Your task to perform on an android device: open app "Lyft - Rideshare, Bikes, Scooters & Transit" (install if not already installed) Image 0: 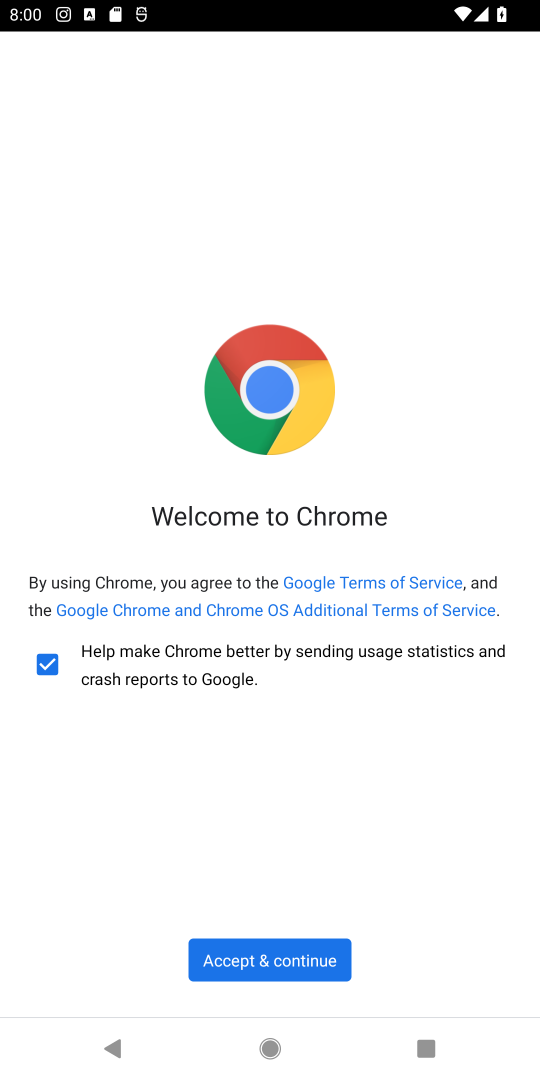
Step 0: press home button
Your task to perform on an android device: open app "Lyft - Rideshare, Bikes, Scooters & Transit" (install if not already installed) Image 1: 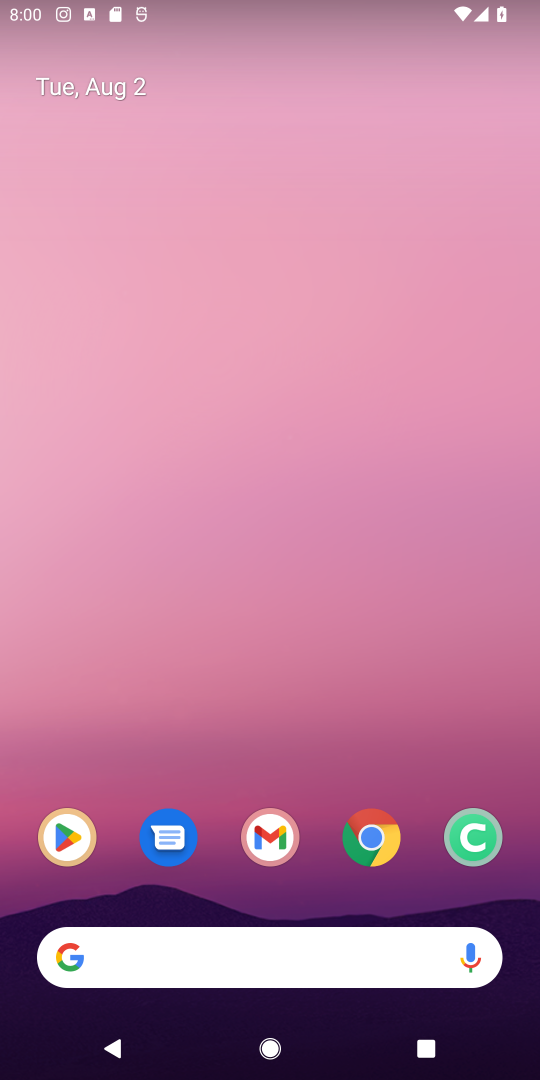
Step 1: click (76, 834)
Your task to perform on an android device: open app "Lyft - Rideshare, Bikes, Scooters & Transit" (install if not already installed) Image 2: 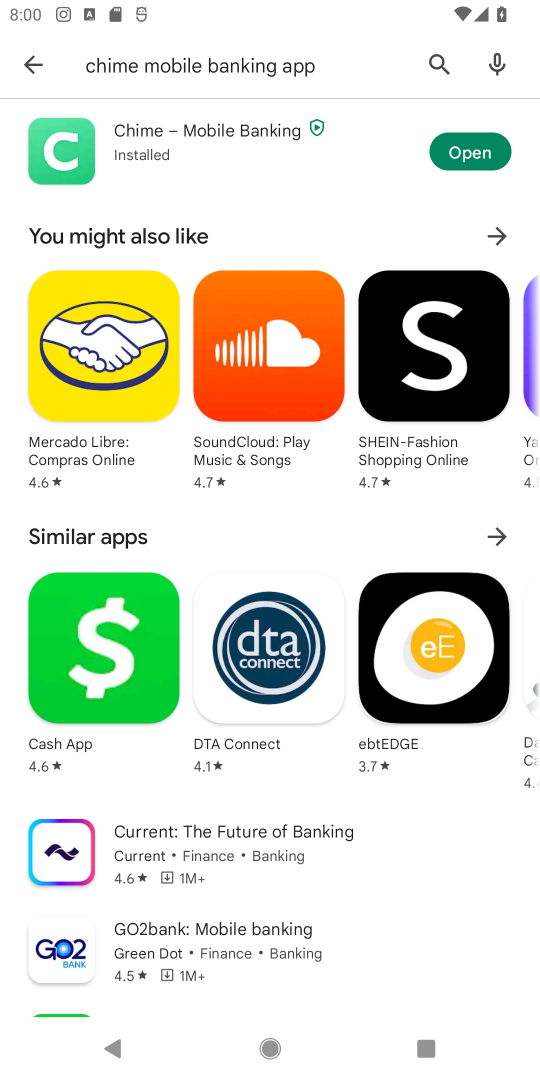
Step 2: click (435, 56)
Your task to perform on an android device: open app "Lyft - Rideshare, Bikes, Scooters & Transit" (install if not already installed) Image 3: 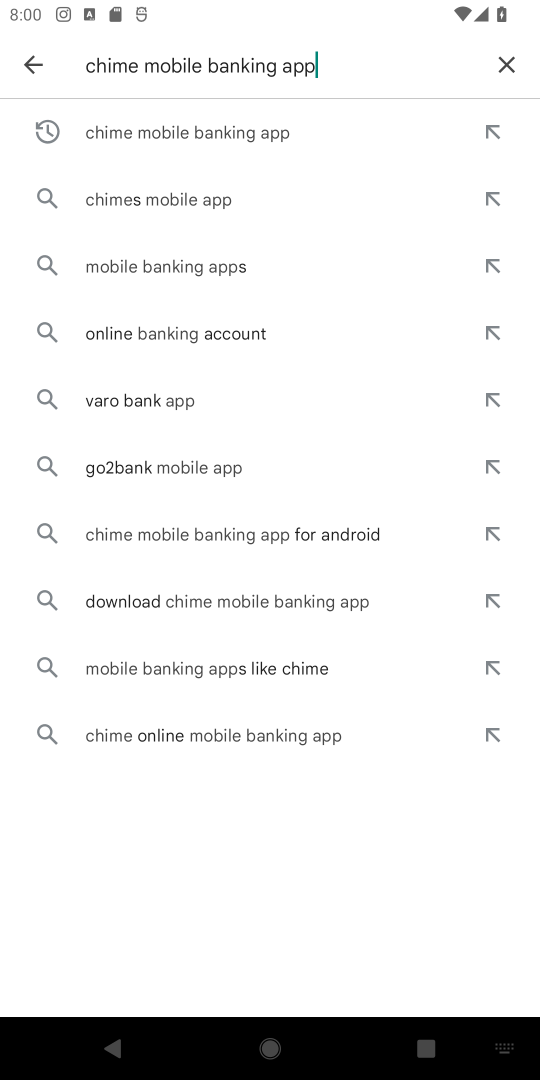
Step 3: click (501, 65)
Your task to perform on an android device: open app "Lyft - Rideshare, Bikes, Scooters & Transit" (install if not already installed) Image 4: 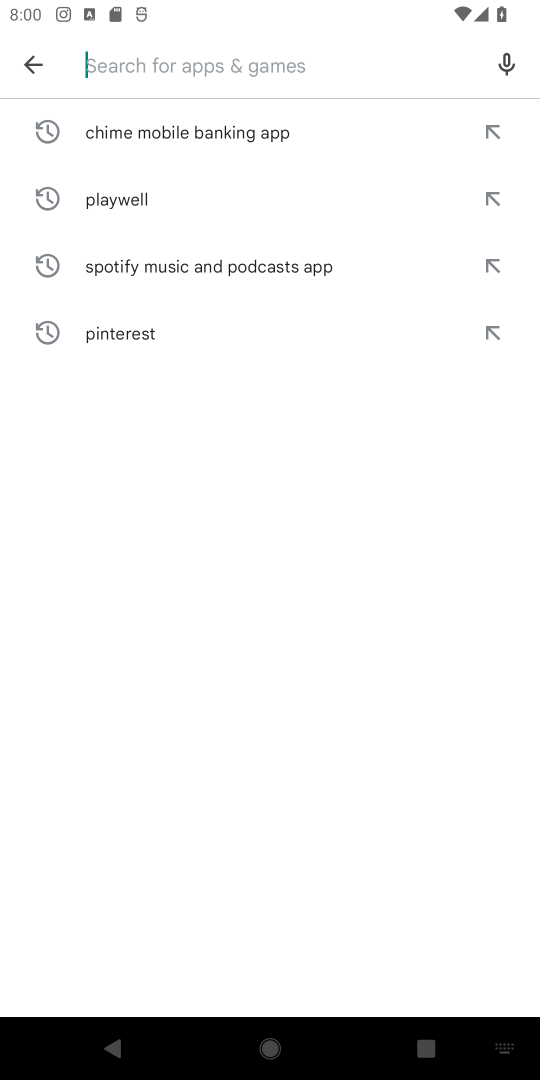
Step 4: type "Lyft - Rideshare, Bikes, Scooters & Transit"
Your task to perform on an android device: open app "Lyft - Rideshare, Bikes, Scooters & Transit" (install if not already installed) Image 5: 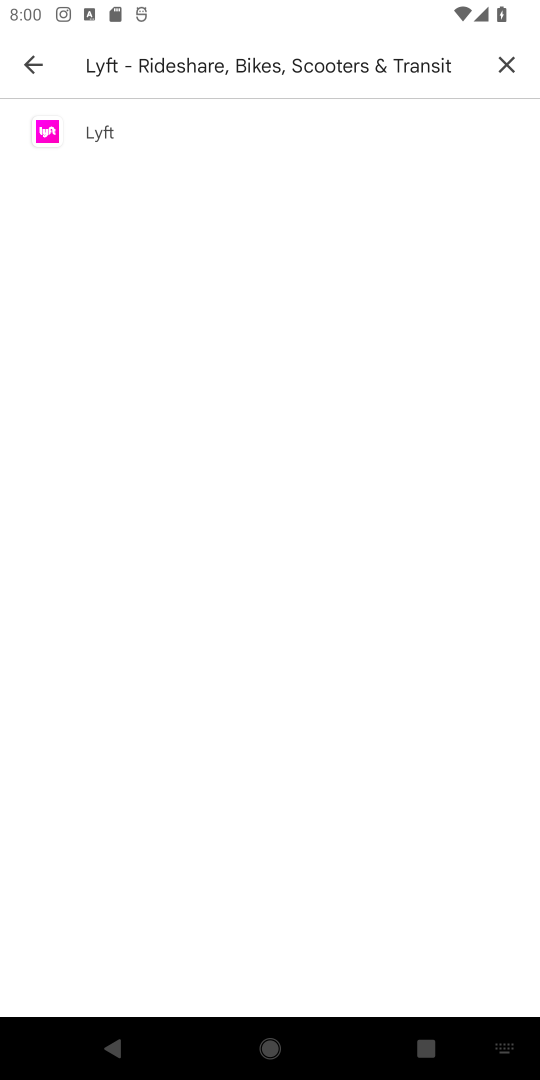
Step 5: click (98, 125)
Your task to perform on an android device: open app "Lyft - Rideshare, Bikes, Scooters & Transit" (install if not already installed) Image 6: 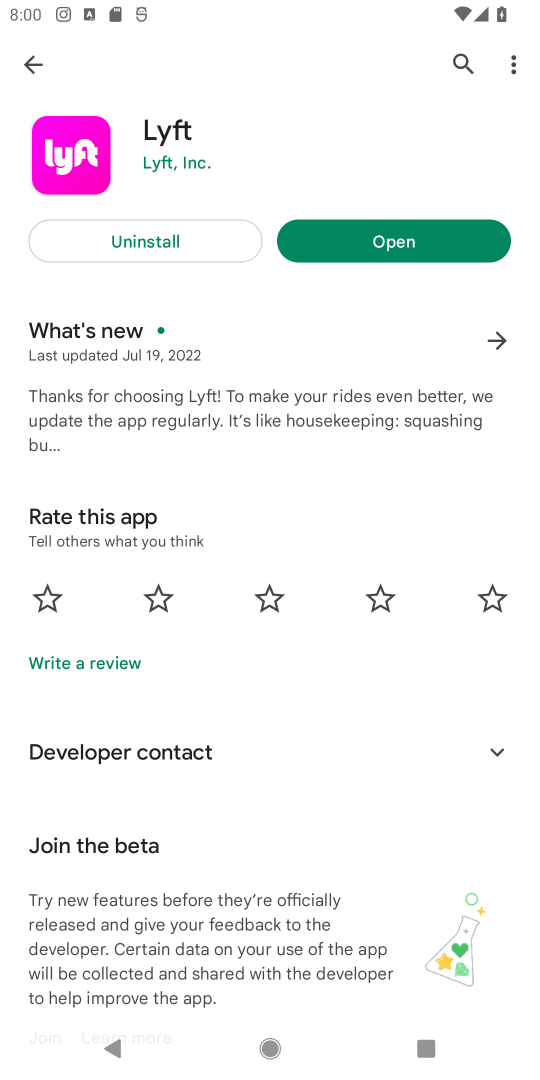
Step 6: click (368, 253)
Your task to perform on an android device: open app "Lyft - Rideshare, Bikes, Scooters & Transit" (install if not already installed) Image 7: 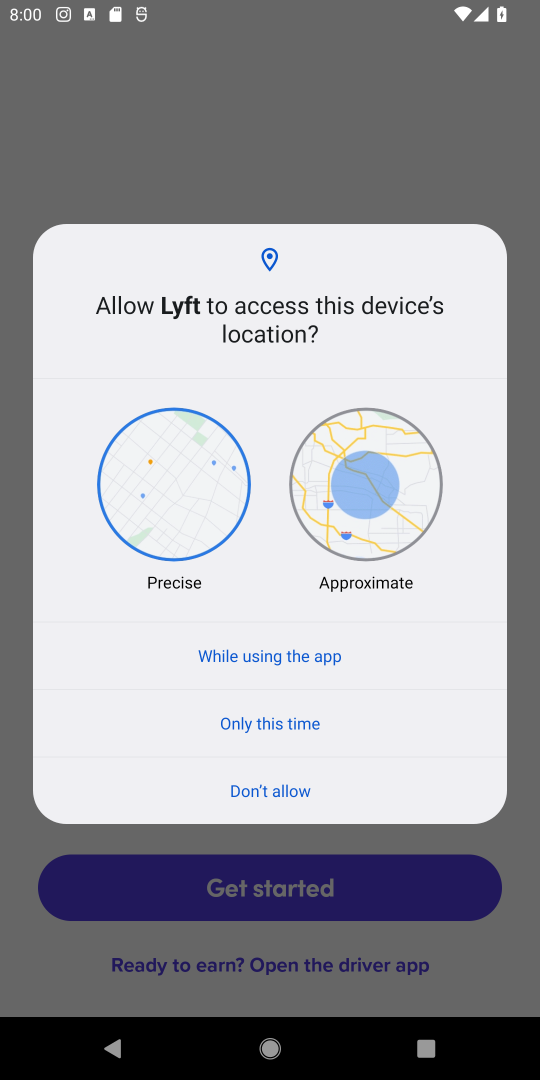
Step 7: task complete